Your task to perform on an android device: Open network settings Image 0: 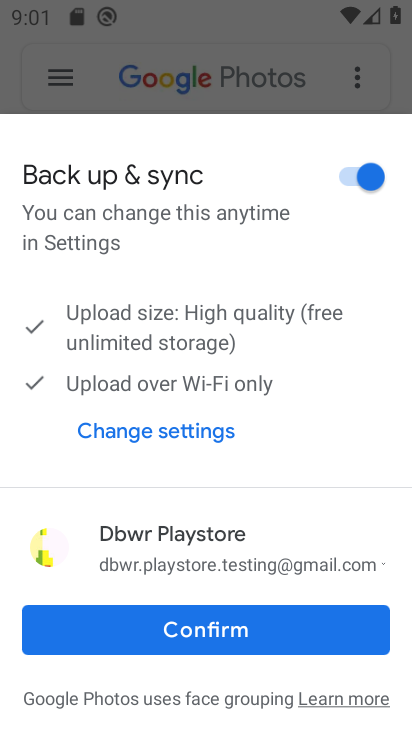
Step 0: press home button
Your task to perform on an android device: Open network settings Image 1: 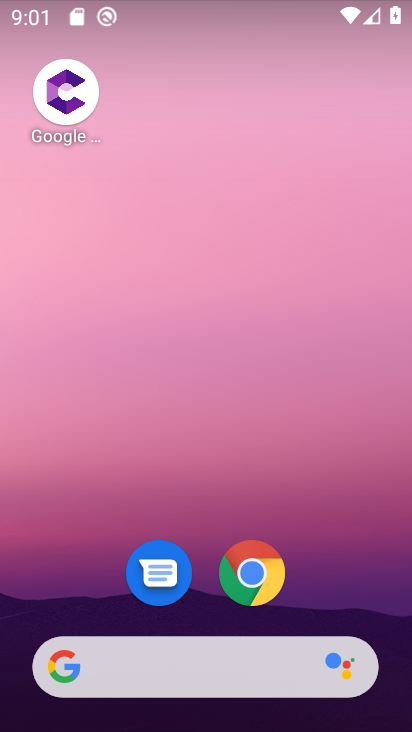
Step 1: drag from (61, 626) to (166, 117)
Your task to perform on an android device: Open network settings Image 2: 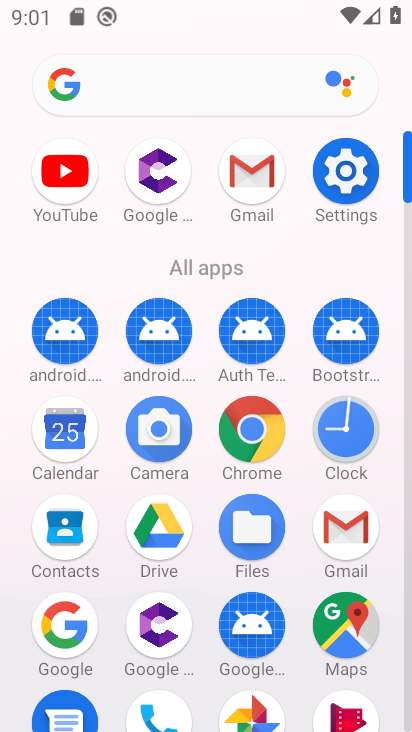
Step 2: click (355, 193)
Your task to perform on an android device: Open network settings Image 3: 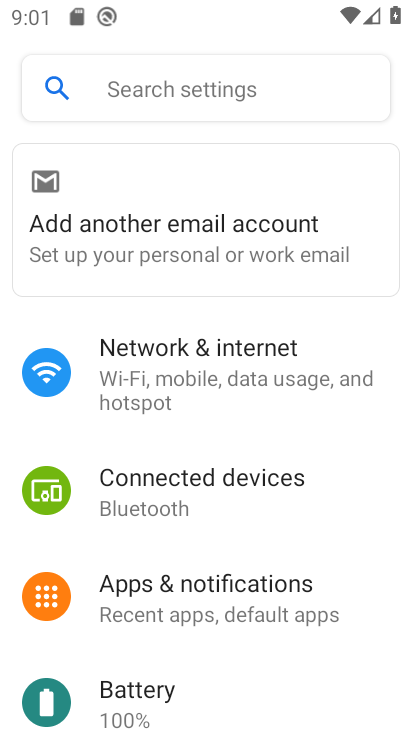
Step 3: click (226, 363)
Your task to perform on an android device: Open network settings Image 4: 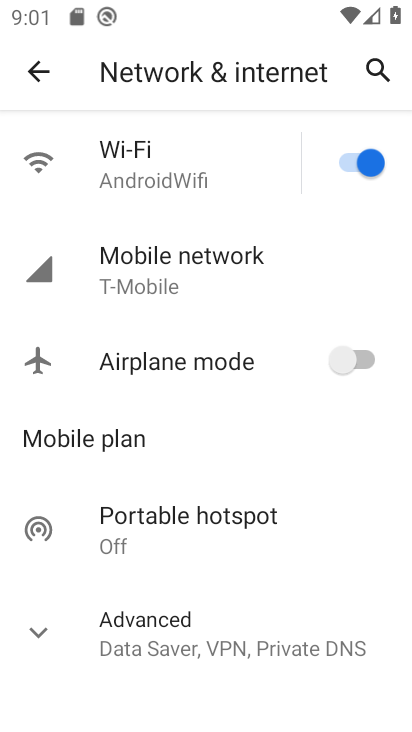
Step 4: click (259, 270)
Your task to perform on an android device: Open network settings Image 5: 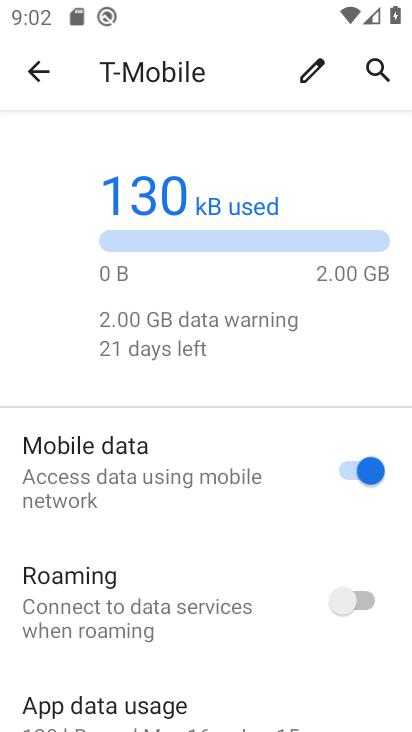
Step 5: task complete